Your task to perform on an android device: Open Chrome and go to the settings page Image 0: 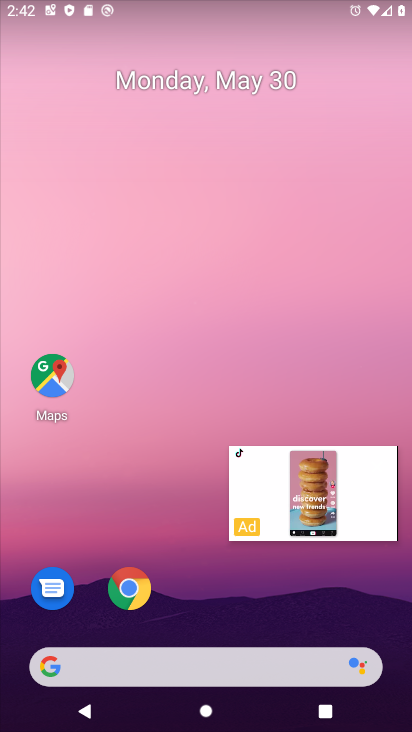
Step 0: drag from (328, 474) to (197, 724)
Your task to perform on an android device: Open Chrome and go to the settings page Image 1: 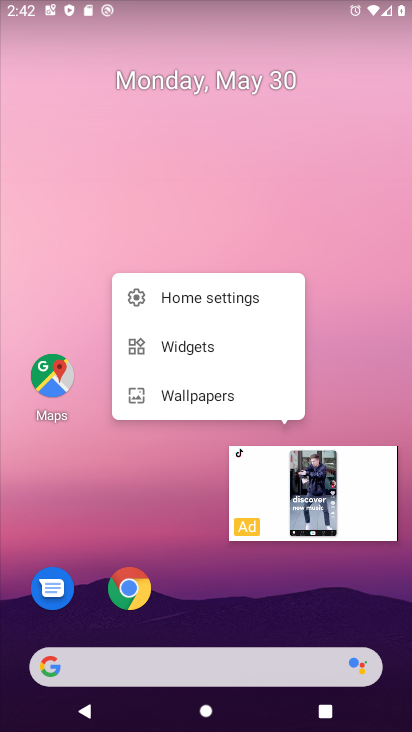
Step 1: drag from (319, 516) to (184, 719)
Your task to perform on an android device: Open Chrome and go to the settings page Image 2: 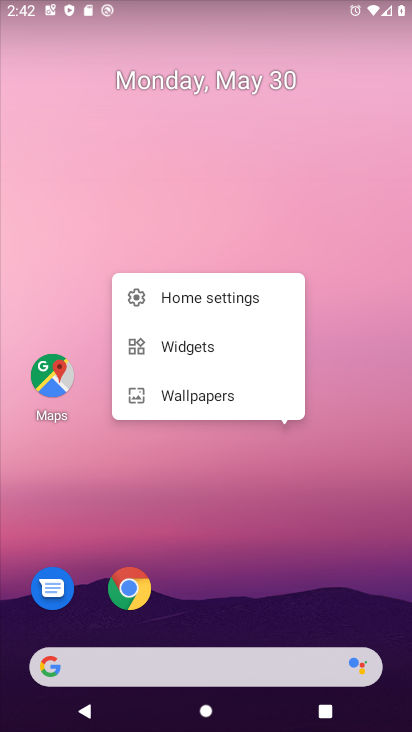
Step 2: click (116, 590)
Your task to perform on an android device: Open Chrome and go to the settings page Image 3: 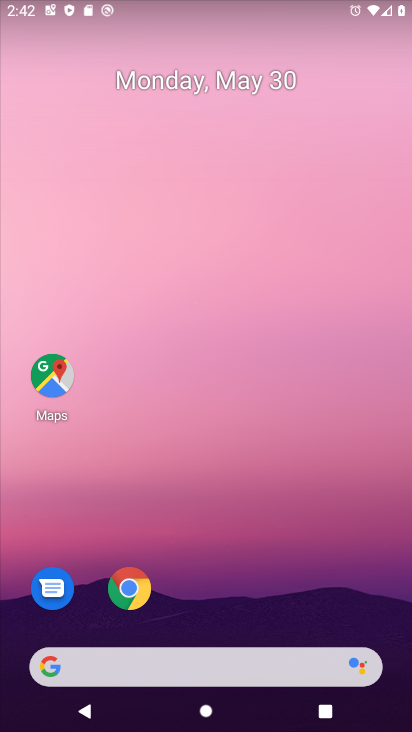
Step 3: click (113, 585)
Your task to perform on an android device: Open Chrome and go to the settings page Image 4: 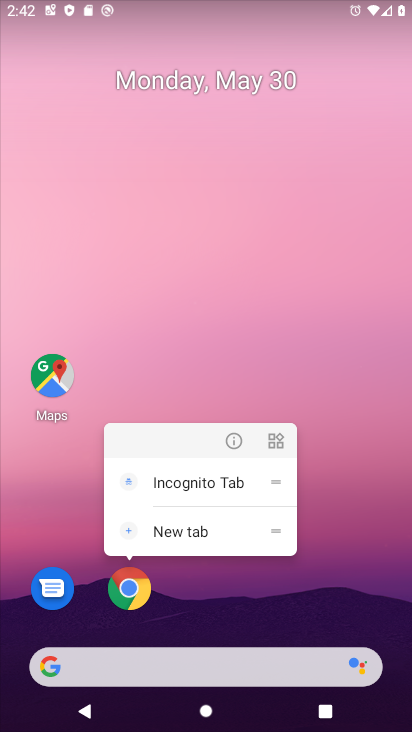
Step 4: click (125, 598)
Your task to perform on an android device: Open Chrome and go to the settings page Image 5: 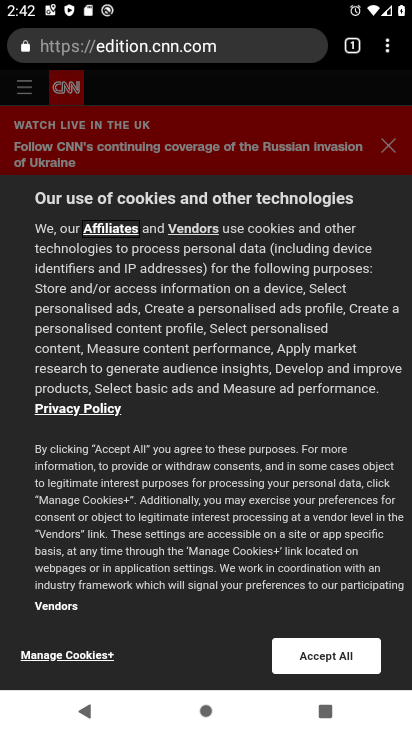
Step 5: click (395, 36)
Your task to perform on an android device: Open Chrome and go to the settings page Image 6: 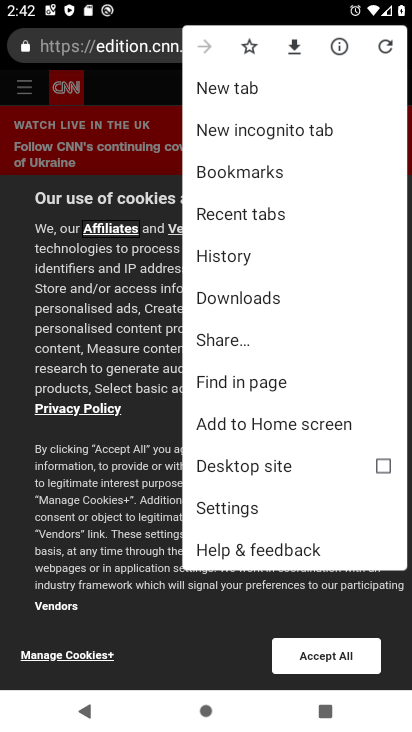
Step 6: click (232, 517)
Your task to perform on an android device: Open Chrome and go to the settings page Image 7: 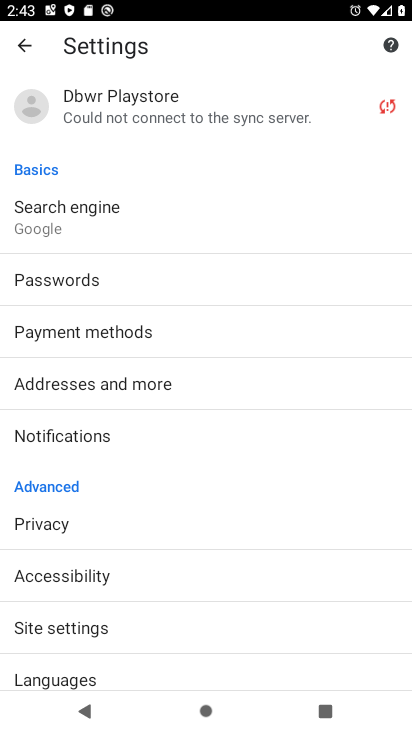
Step 7: task complete